Your task to perform on an android device: Go to CNN.com Image 0: 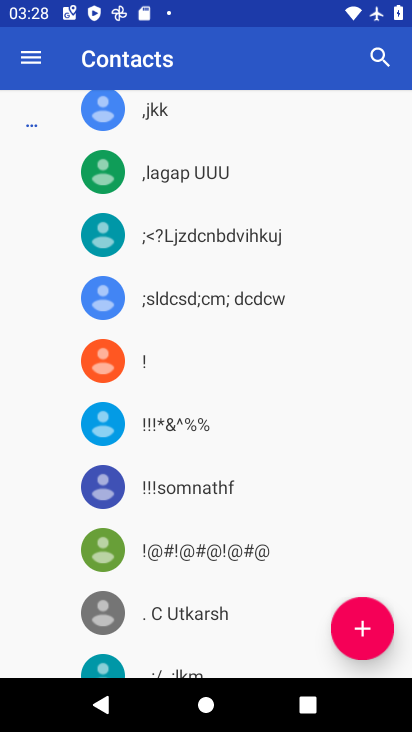
Step 0: press home button
Your task to perform on an android device: Go to CNN.com Image 1: 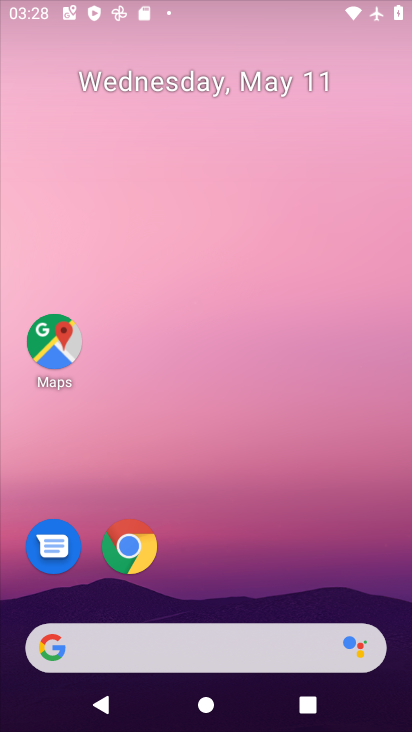
Step 1: drag from (192, 601) to (284, 144)
Your task to perform on an android device: Go to CNN.com Image 2: 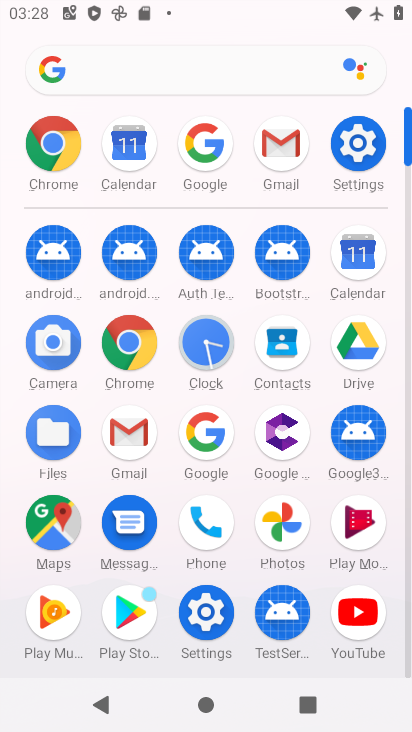
Step 2: click (201, 60)
Your task to perform on an android device: Go to CNN.com Image 3: 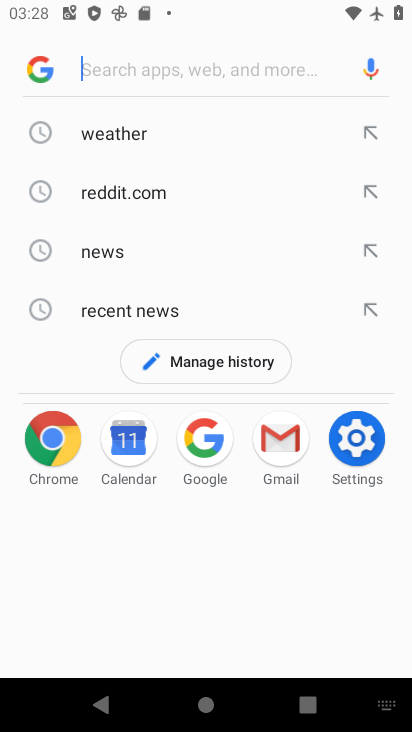
Step 3: type "cnn.com"
Your task to perform on an android device: Go to CNN.com Image 4: 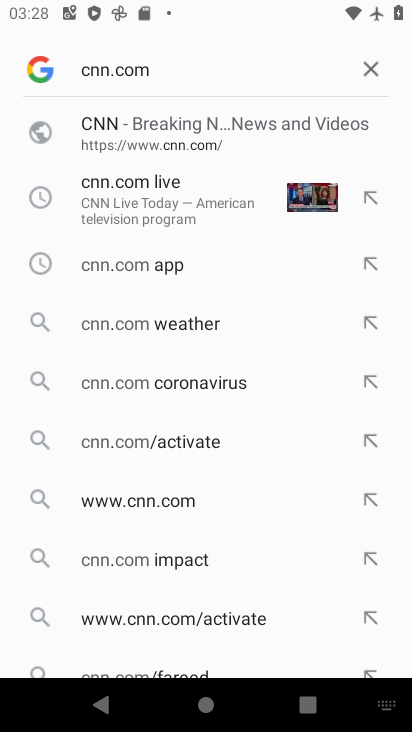
Step 4: drag from (242, 364) to (264, 244)
Your task to perform on an android device: Go to CNN.com Image 5: 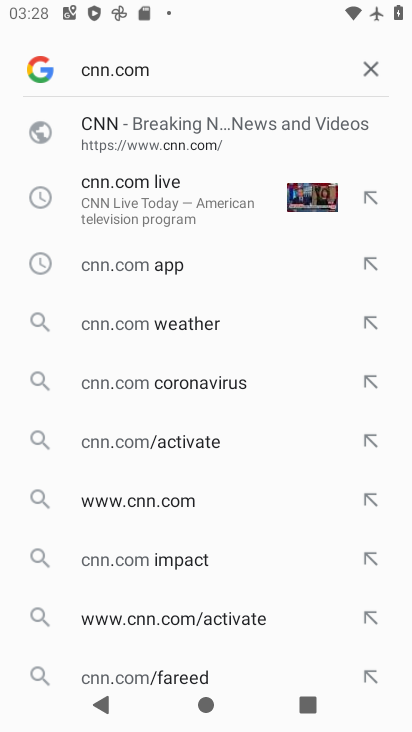
Step 5: click (153, 134)
Your task to perform on an android device: Go to CNN.com Image 6: 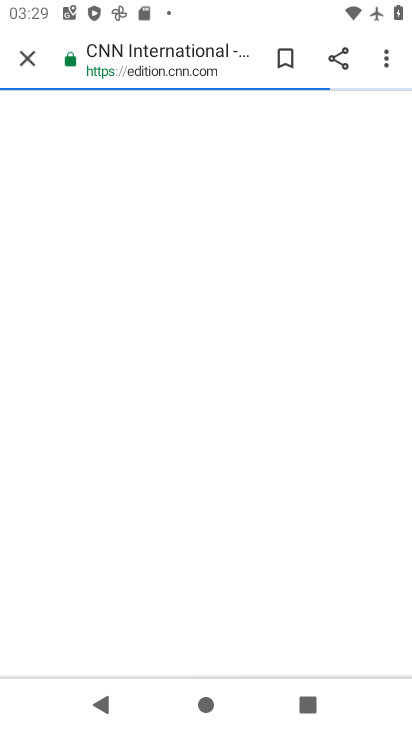
Step 6: task complete